Your task to perform on an android device: toggle notifications settings in the gmail app Image 0: 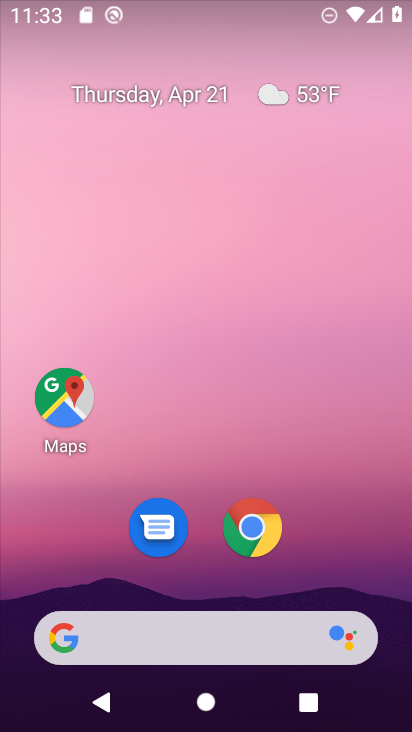
Step 0: drag from (371, 553) to (370, 164)
Your task to perform on an android device: toggle notifications settings in the gmail app Image 1: 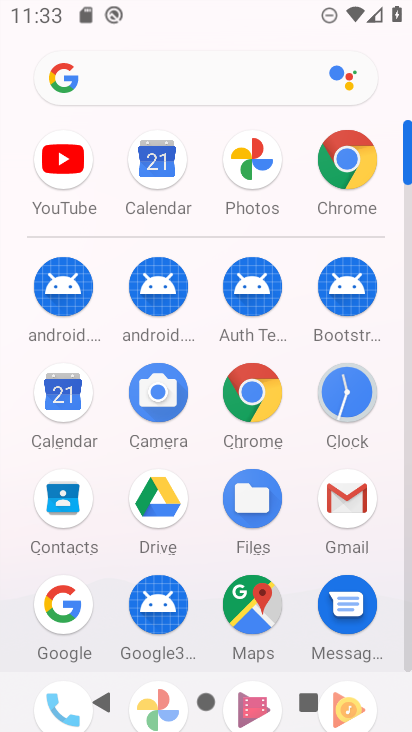
Step 1: click (363, 506)
Your task to perform on an android device: toggle notifications settings in the gmail app Image 2: 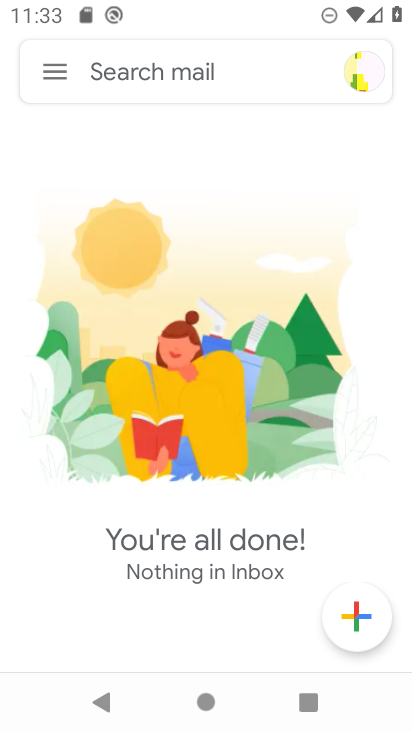
Step 2: click (55, 81)
Your task to perform on an android device: toggle notifications settings in the gmail app Image 3: 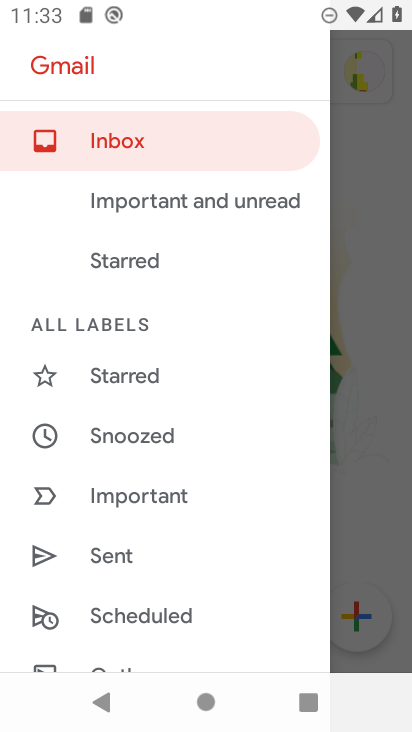
Step 3: drag from (277, 468) to (275, 384)
Your task to perform on an android device: toggle notifications settings in the gmail app Image 4: 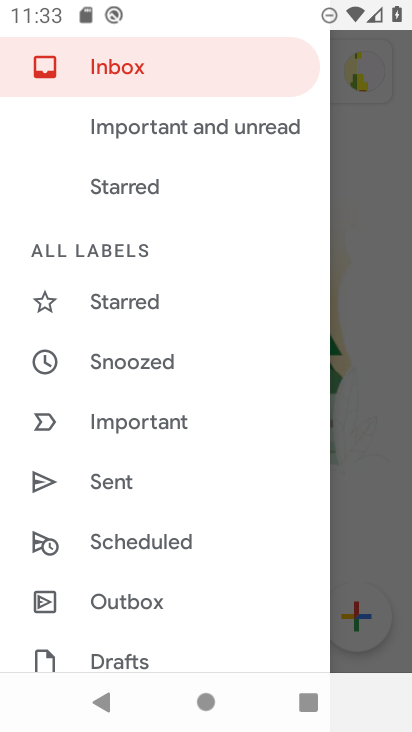
Step 4: drag from (271, 528) to (263, 382)
Your task to perform on an android device: toggle notifications settings in the gmail app Image 5: 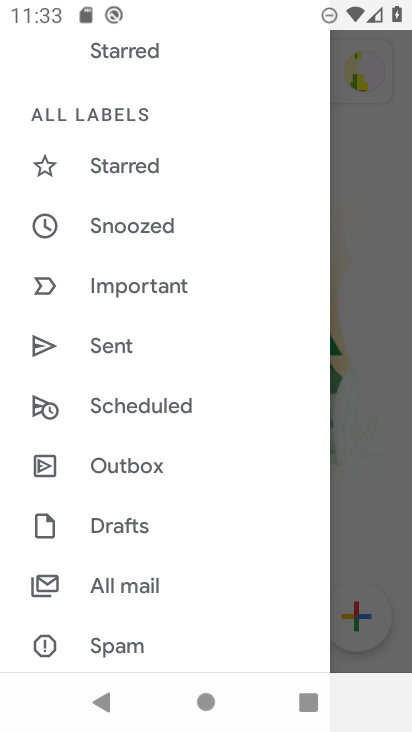
Step 5: drag from (263, 497) to (261, 376)
Your task to perform on an android device: toggle notifications settings in the gmail app Image 6: 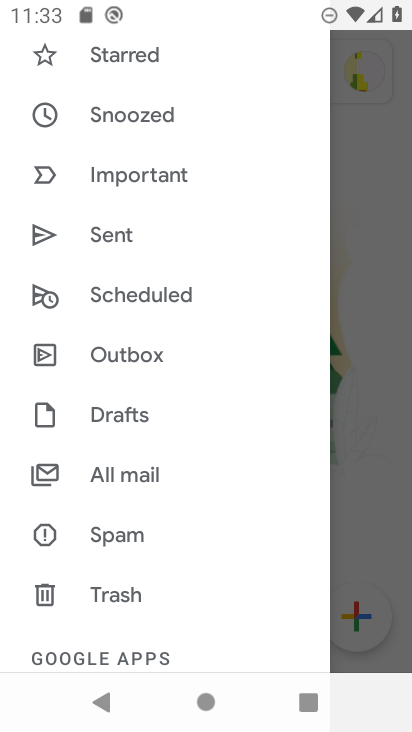
Step 6: drag from (257, 509) to (256, 366)
Your task to perform on an android device: toggle notifications settings in the gmail app Image 7: 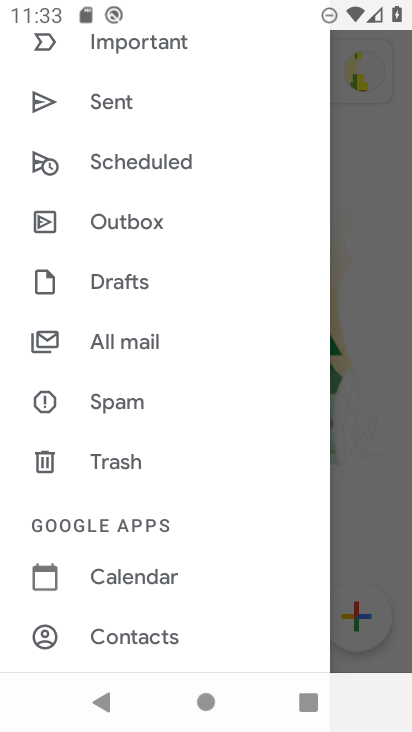
Step 7: drag from (257, 514) to (260, 349)
Your task to perform on an android device: toggle notifications settings in the gmail app Image 8: 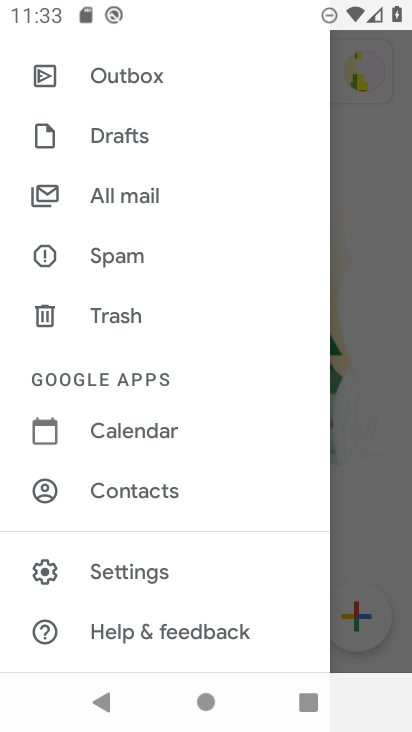
Step 8: drag from (259, 543) to (265, 434)
Your task to perform on an android device: toggle notifications settings in the gmail app Image 9: 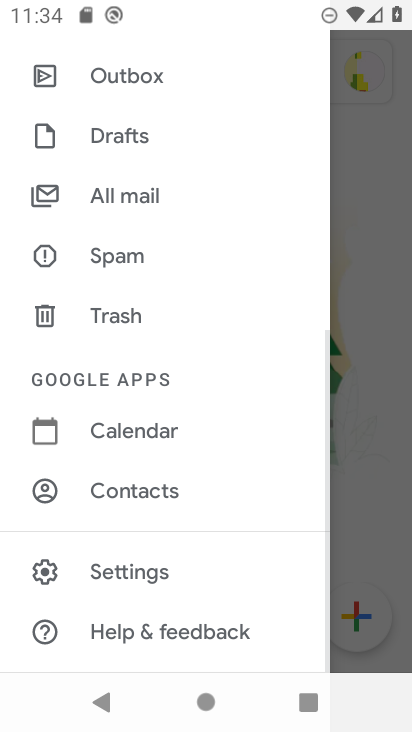
Step 9: click (171, 566)
Your task to perform on an android device: toggle notifications settings in the gmail app Image 10: 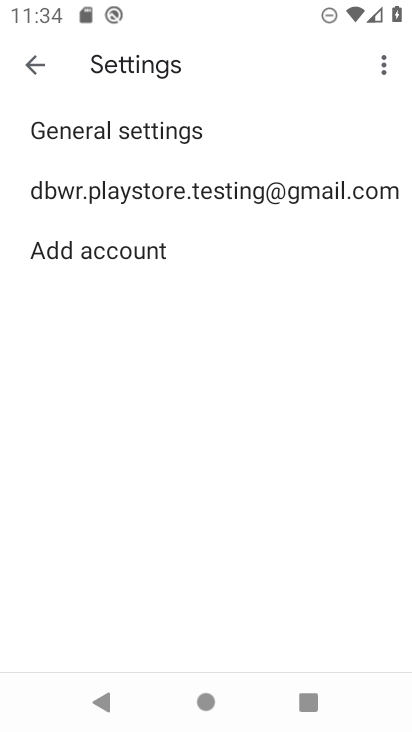
Step 10: click (199, 186)
Your task to perform on an android device: toggle notifications settings in the gmail app Image 11: 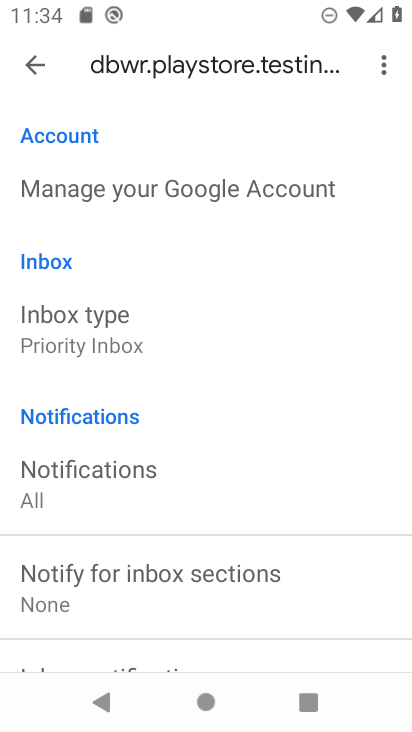
Step 11: drag from (342, 590) to (339, 472)
Your task to perform on an android device: toggle notifications settings in the gmail app Image 12: 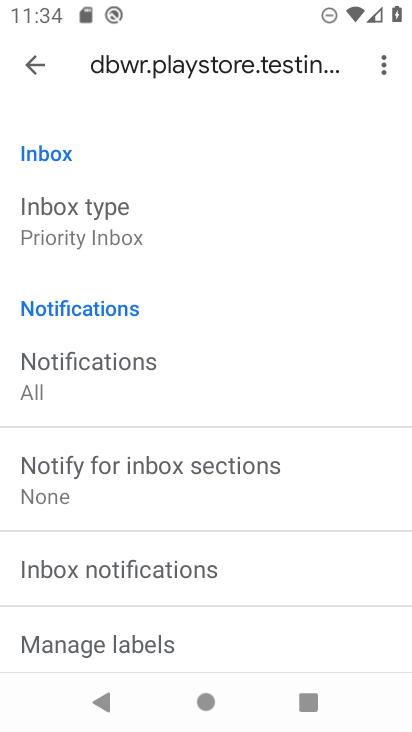
Step 12: drag from (337, 600) to (337, 460)
Your task to perform on an android device: toggle notifications settings in the gmail app Image 13: 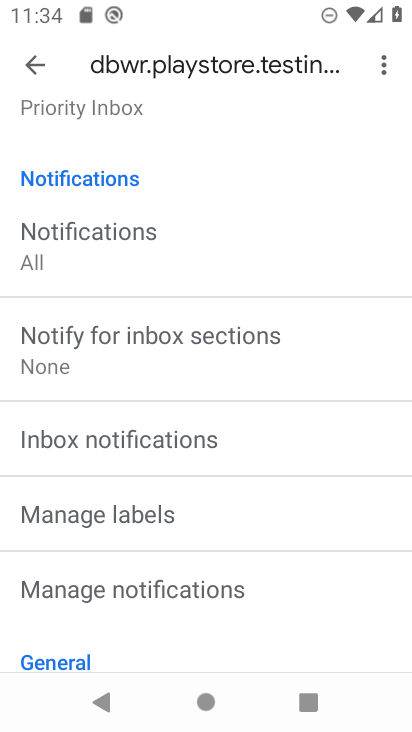
Step 13: drag from (319, 613) to (322, 478)
Your task to perform on an android device: toggle notifications settings in the gmail app Image 14: 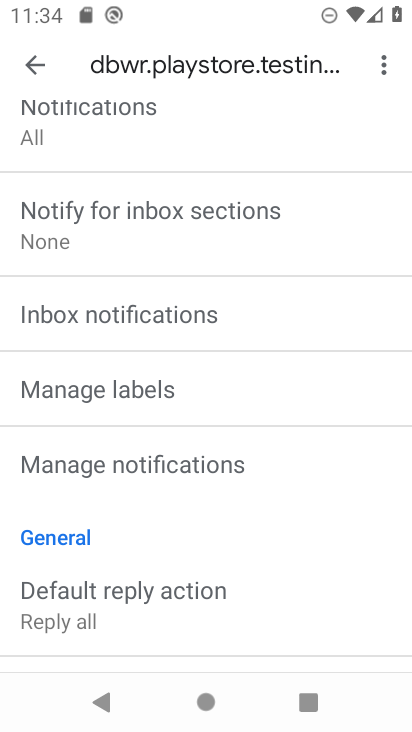
Step 14: drag from (337, 595) to (339, 472)
Your task to perform on an android device: toggle notifications settings in the gmail app Image 15: 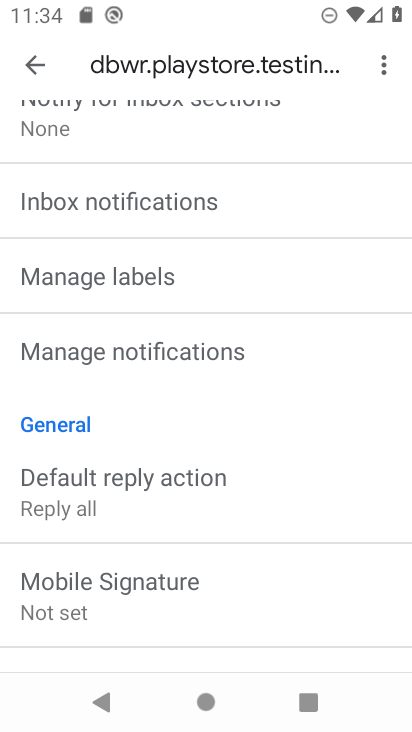
Step 15: click (224, 343)
Your task to perform on an android device: toggle notifications settings in the gmail app Image 16: 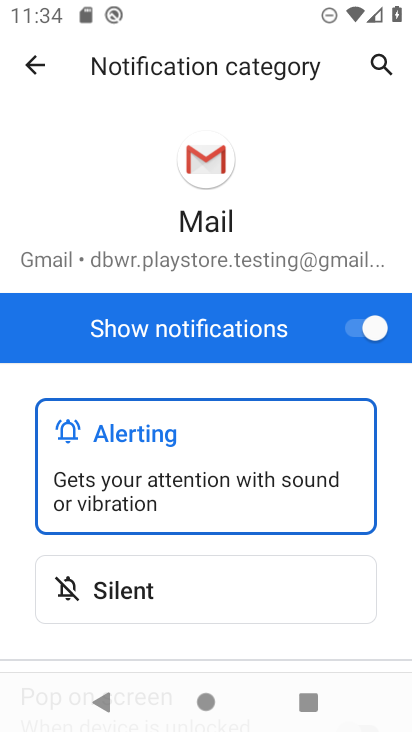
Step 16: click (363, 328)
Your task to perform on an android device: toggle notifications settings in the gmail app Image 17: 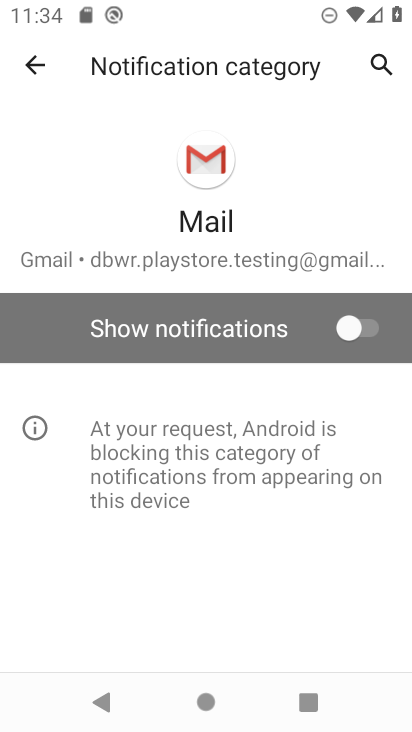
Step 17: task complete